Your task to perform on an android device: turn off priority inbox in the gmail app Image 0: 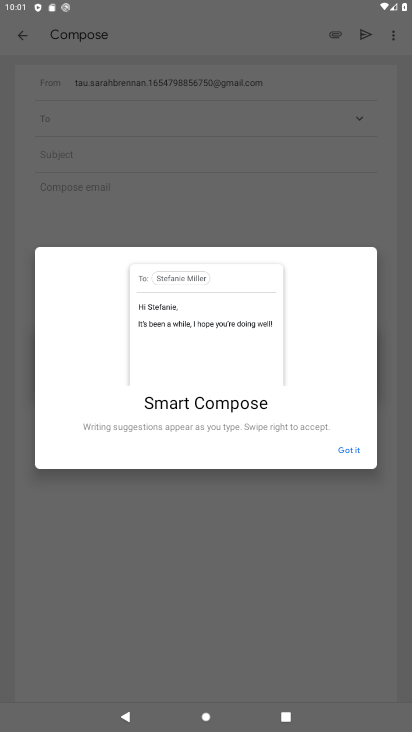
Step 0: press home button
Your task to perform on an android device: turn off priority inbox in the gmail app Image 1: 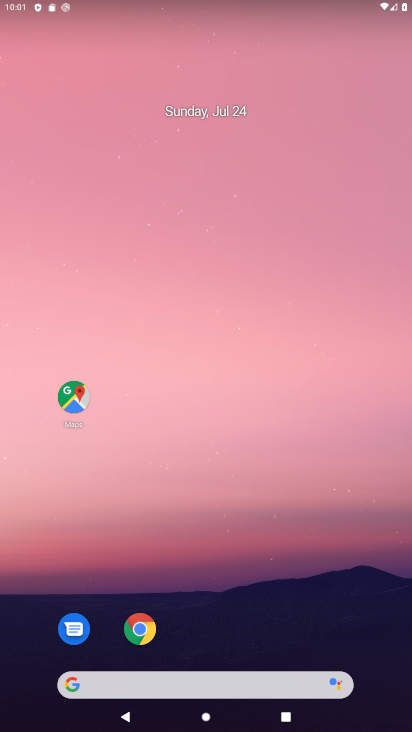
Step 1: drag from (176, 686) to (275, 83)
Your task to perform on an android device: turn off priority inbox in the gmail app Image 2: 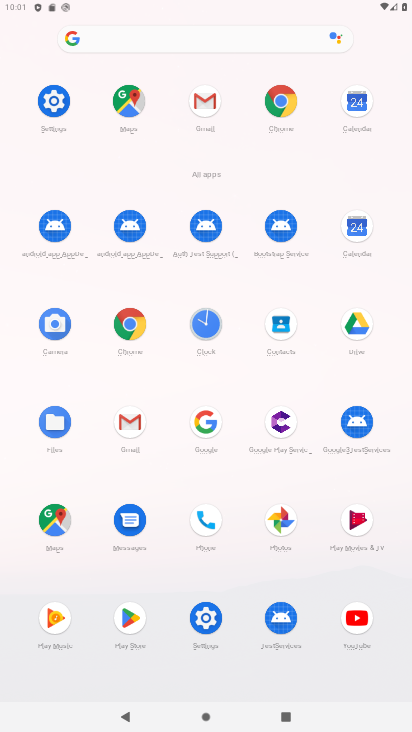
Step 2: click (206, 100)
Your task to perform on an android device: turn off priority inbox in the gmail app Image 3: 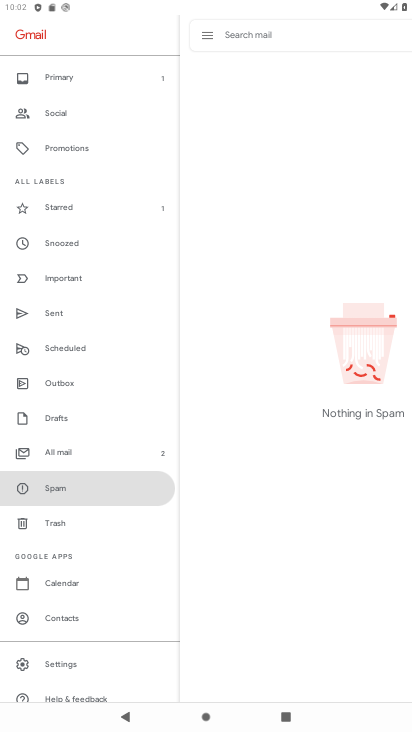
Step 3: click (67, 663)
Your task to perform on an android device: turn off priority inbox in the gmail app Image 4: 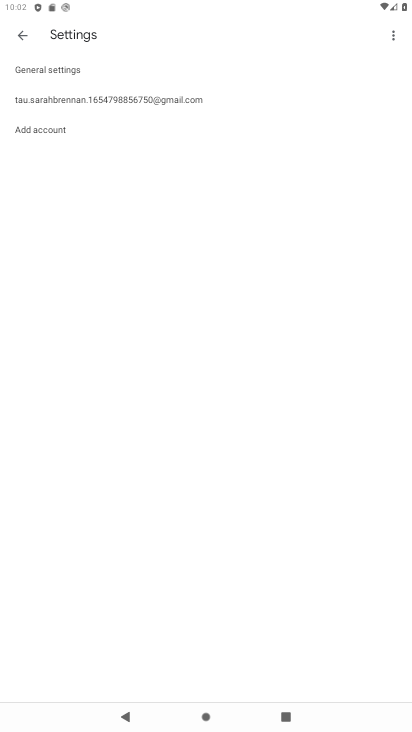
Step 4: click (166, 101)
Your task to perform on an android device: turn off priority inbox in the gmail app Image 5: 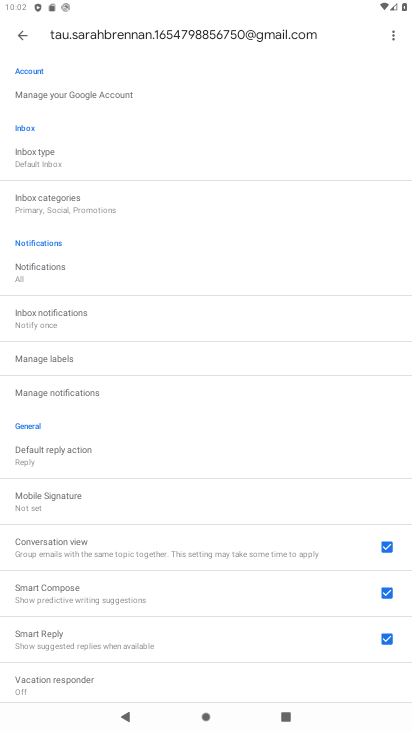
Step 5: click (44, 166)
Your task to perform on an android device: turn off priority inbox in the gmail app Image 6: 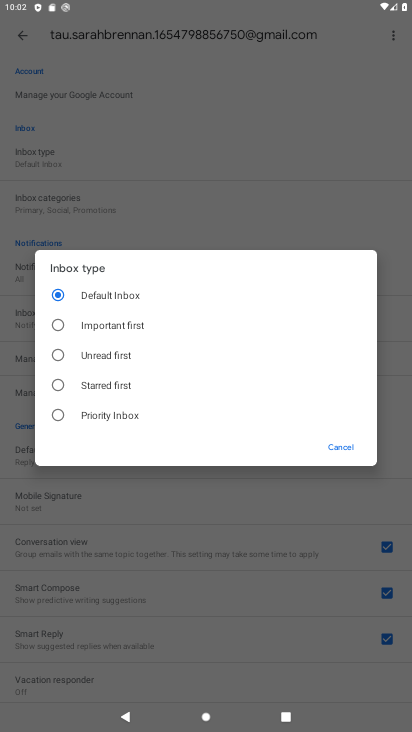
Step 6: click (53, 293)
Your task to perform on an android device: turn off priority inbox in the gmail app Image 7: 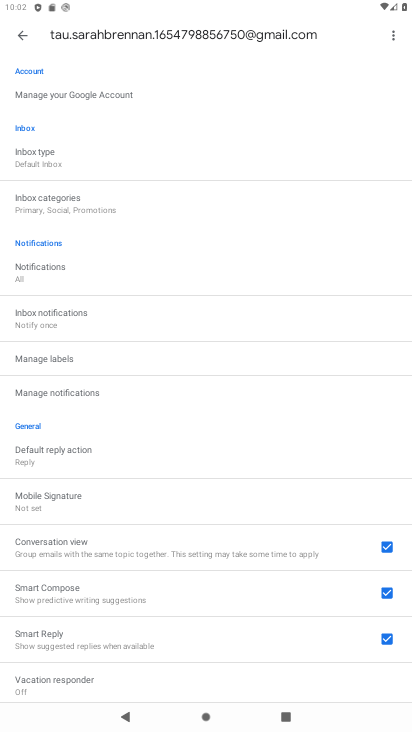
Step 7: task complete